Your task to perform on an android device: turn on wifi Image 0: 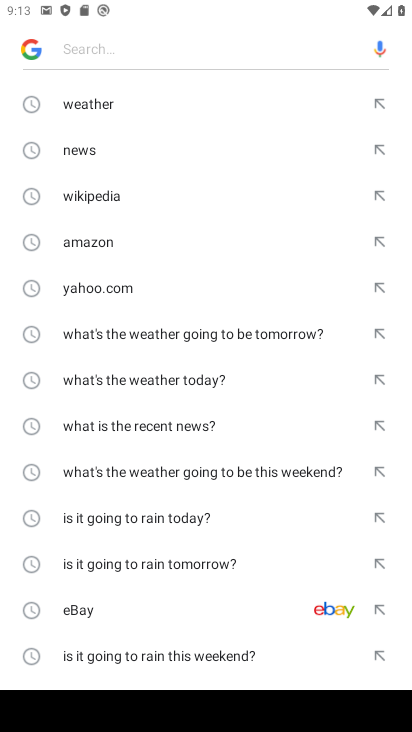
Step 0: task complete